Your task to perform on an android device: Open Chrome and go to settings Image 0: 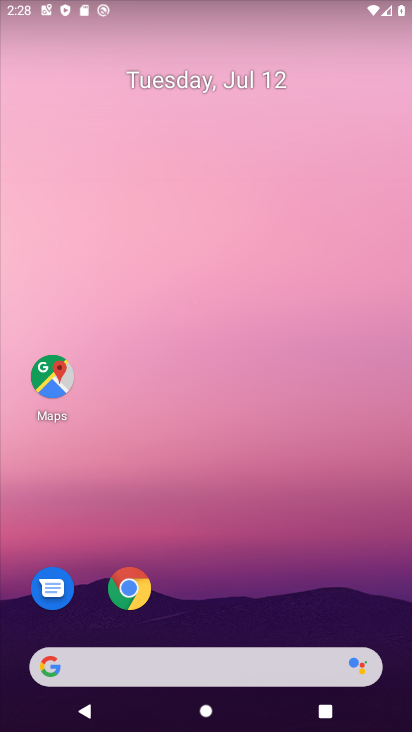
Step 0: click (121, 597)
Your task to perform on an android device: Open Chrome and go to settings Image 1: 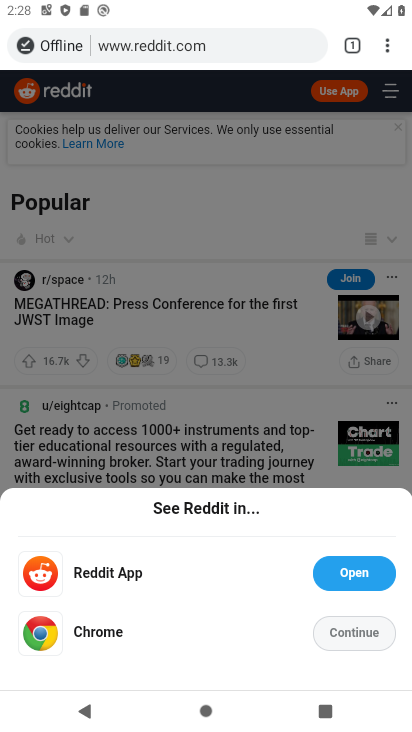
Step 1: task complete